Your task to perform on an android device: check data usage Image 0: 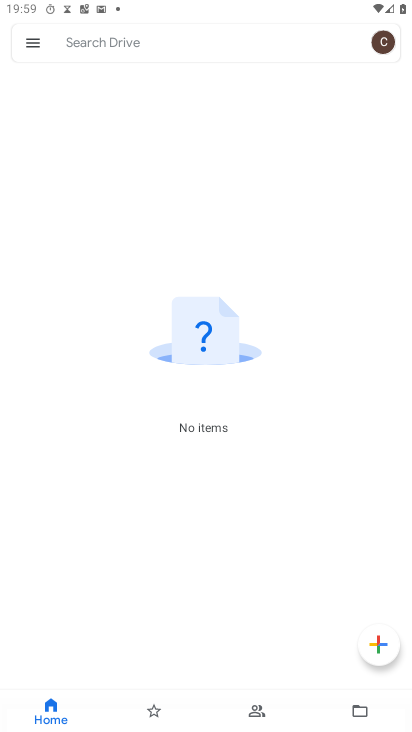
Step 0: press home button
Your task to perform on an android device: check data usage Image 1: 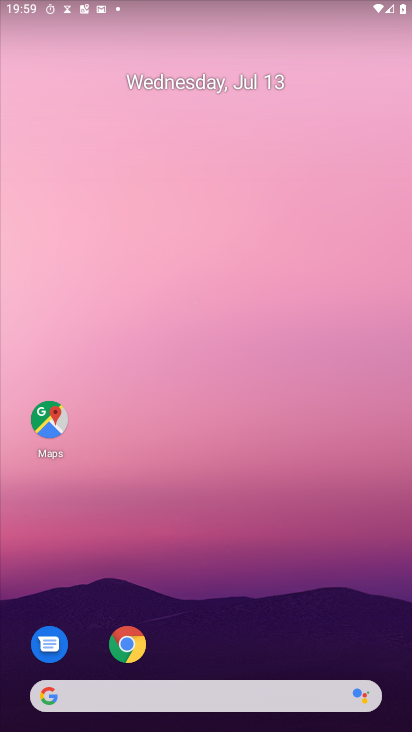
Step 1: drag from (235, 606) to (260, 29)
Your task to perform on an android device: check data usage Image 2: 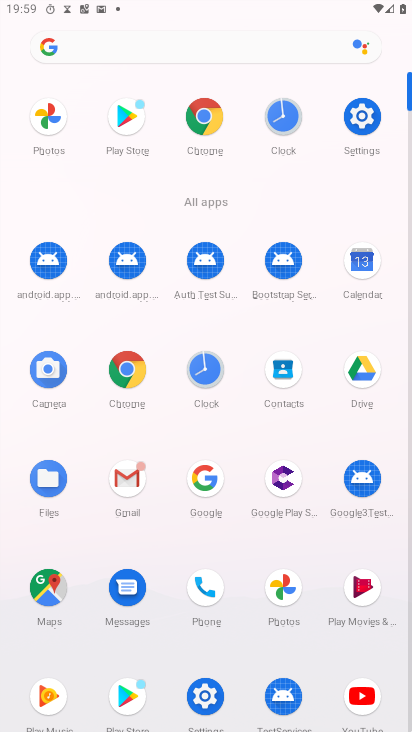
Step 2: click (366, 110)
Your task to perform on an android device: check data usage Image 3: 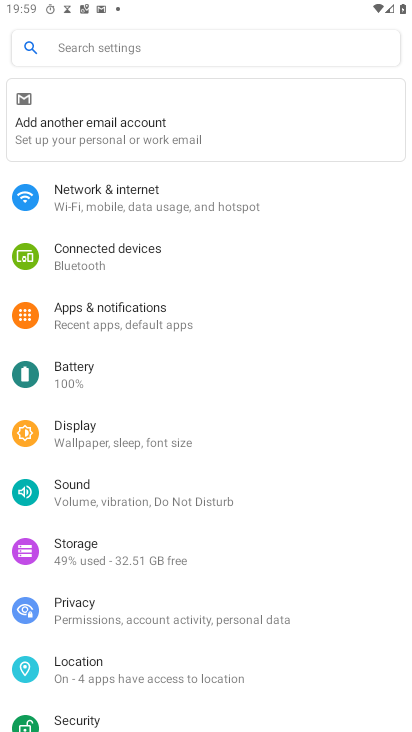
Step 3: click (139, 197)
Your task to perform on an android device: check data usage Image 4: 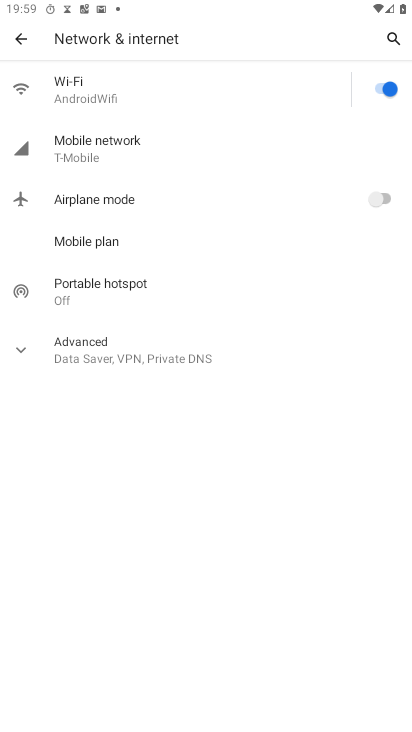
Step 4: click (158, 150)
Your task to perform on an android device: check data usage Image 5: 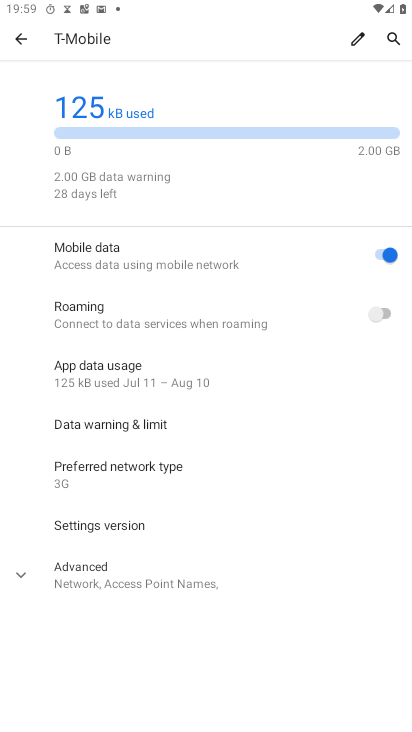
Step 5: click (172, 388)
Your task to perform on an android device: check data usage Image 6: 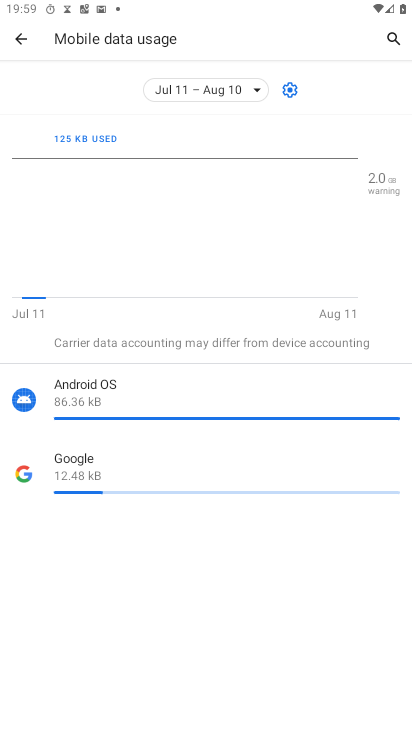
Step 6: task complete